Your task to perform on an android device: Open the stopwatch Image 0: 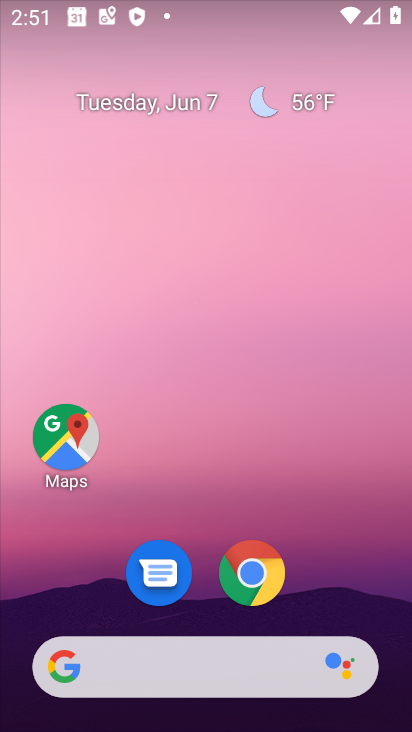
Step 0: drag from (312, 600) to (331, 11)
Your task to perform on an android device: Open the stopwatch Image 1: 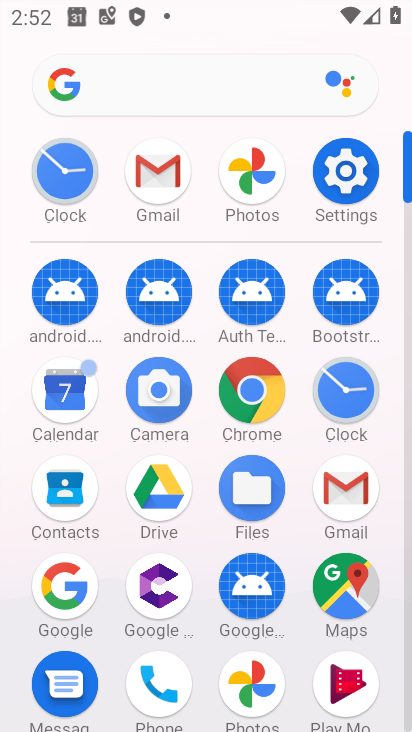
Step 1: click (339, 386)
Your task to perform on an android device: Open the stopwatch Image 2: 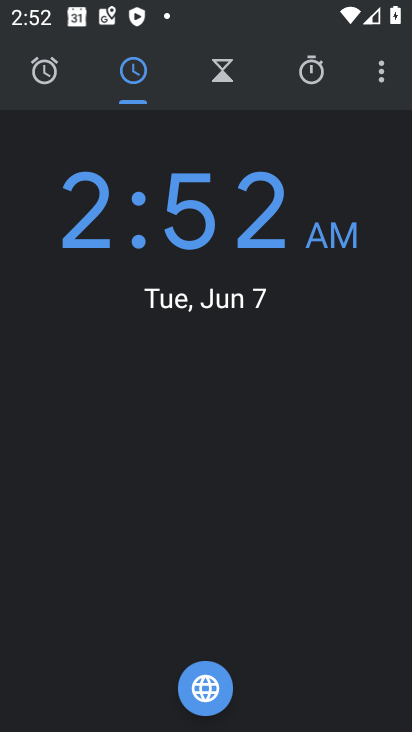
Step 2: click (328, 70)
Your task to perform on an android device: Open the stopwatch Image 3: 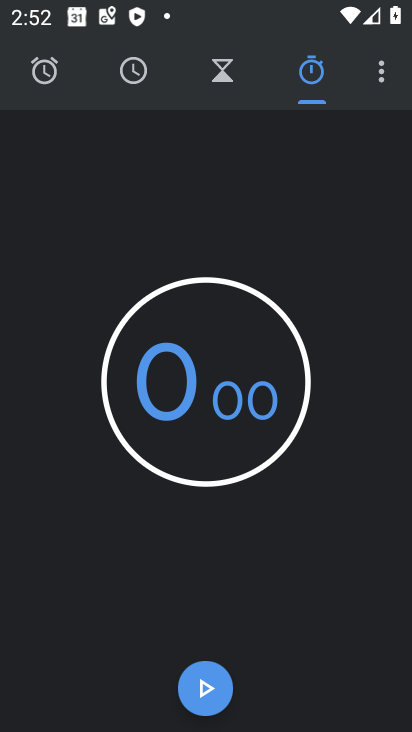
Step 3: task complete